Your task to perform on an android device: delete location history Image 0: 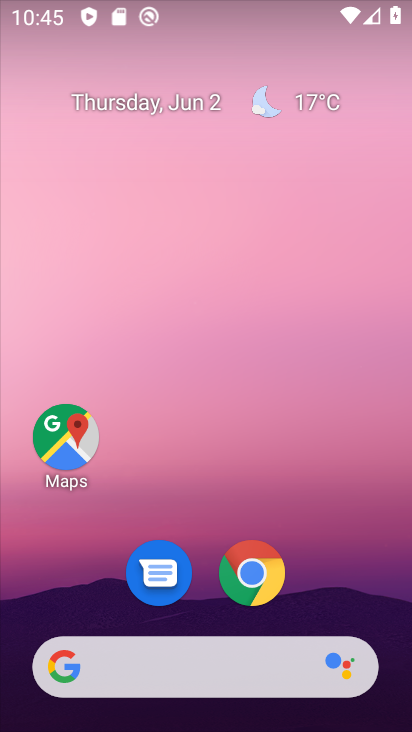
Step 0: task complete